Your task to perform on an android device: check battery use Image 0: 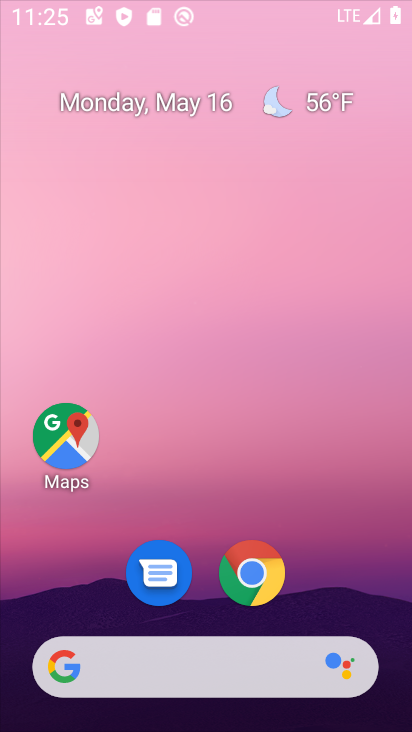
Step 0: drag from (228, 716) to (259, 104)
Your task to perform on an android device: check battery use Image 1: 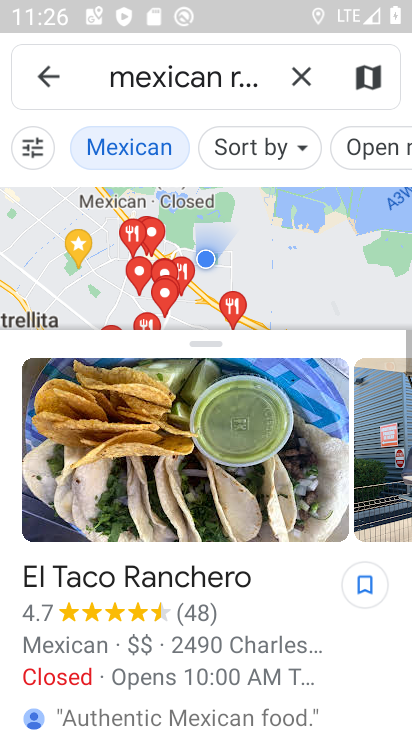
Step 1: press home button
Your task to perform on an android device: check battery use Image 2: 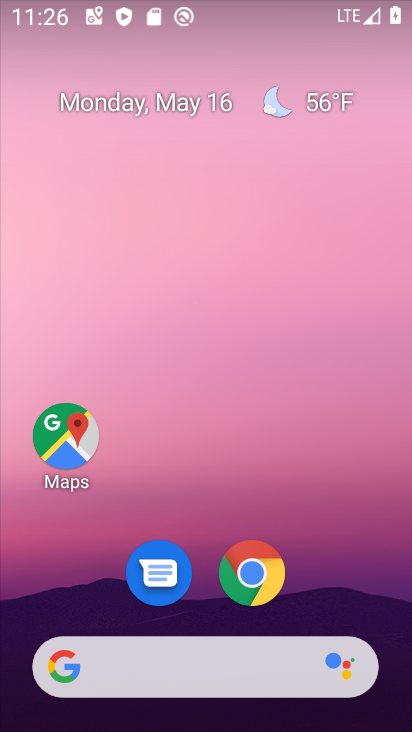
Step 2: drag from (244, 693) to (303, 128)
Your task to perform on an android device: check battery use Image 3: 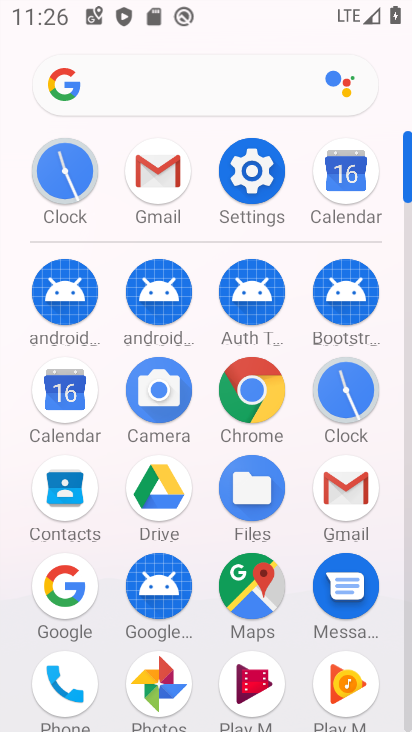
Step 3: click (258, 185)
Your task to perform on an android device: check battery use Image 4: 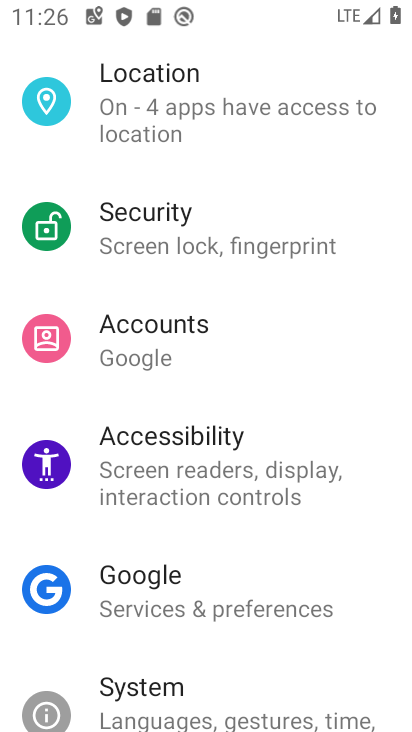
Step 4: drag from (235, 182) to (242, 553)
Your task to perform on an android device: check battery use Image 5: 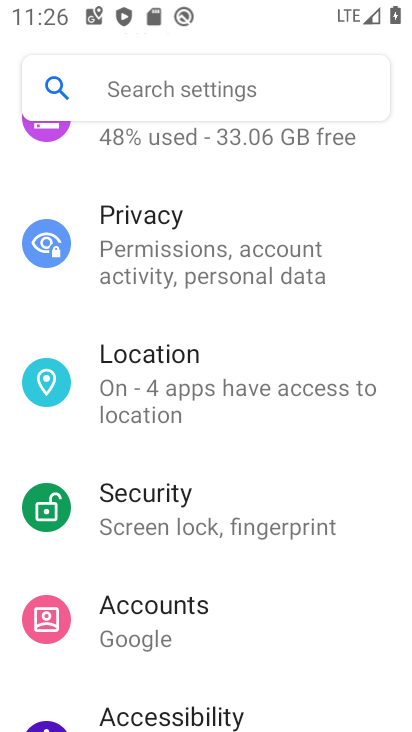
Step 5: drag from (229, 207) to (203, 727)
Your task to perform on an android device: check battery use Image 6: 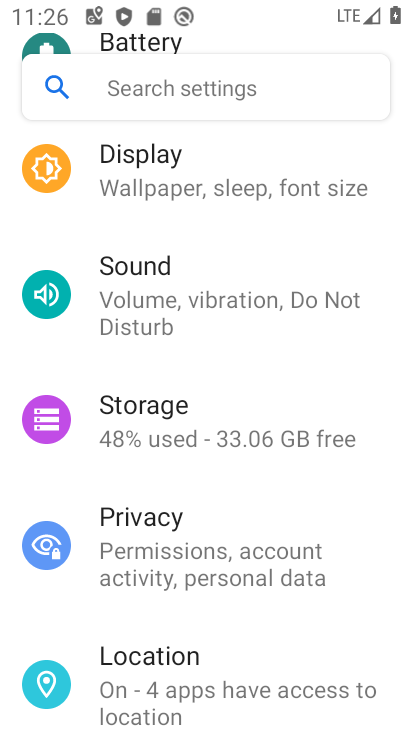
Step 6: drag from (241, 211) to (253, 515)
Your task to perform on an android device: check battery use Image 7: 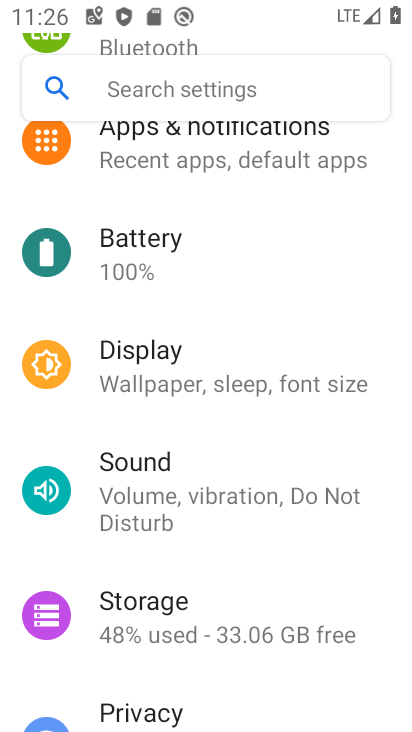
Step 7: click (226, 235)
Your task to perform on an android device: check battery use Image 8: 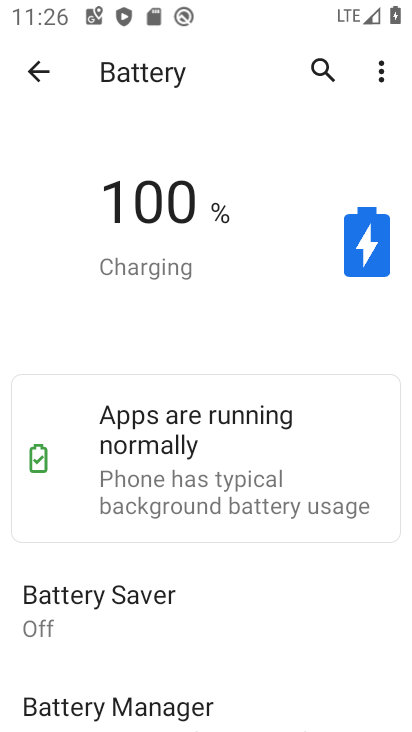
Step 8: click (390, 59)
Your task to perform on an android device: check battery use Image 9: 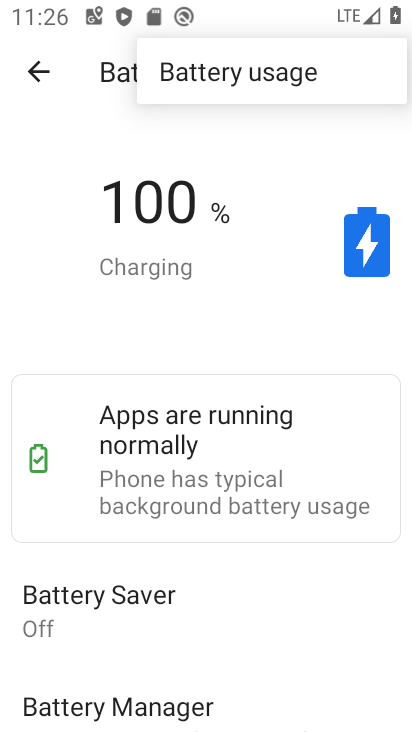
Step 9: click (323, 83)
Your task to perform on an android device: check battery use Image 10: 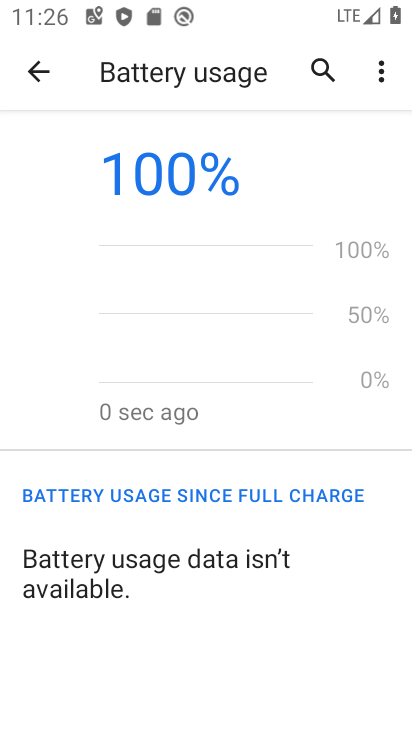
Step 10: task complete